Your task to perform on an android device: Go to wifi settings Image 0: 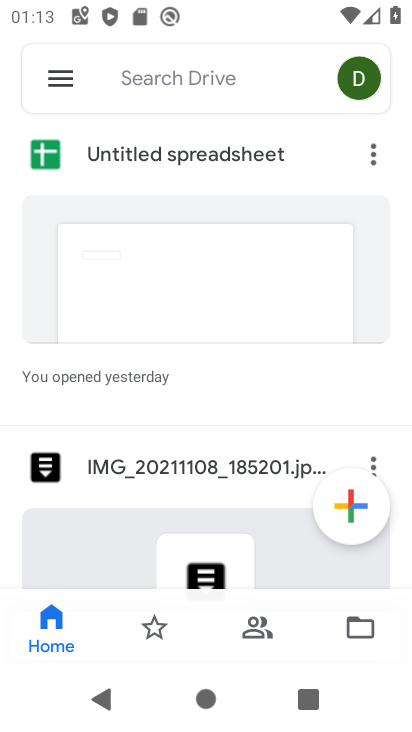
Step 0: press home button
Your task to perform on an android device: Go to wifi settings Image 1: 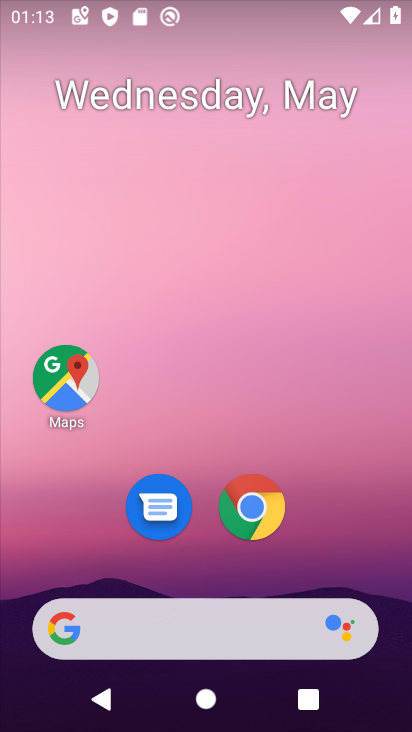
Step 1: drag from (216, 455) to (184, 88)
Your task to perform on an android device: Go to wifi settings Image 2: 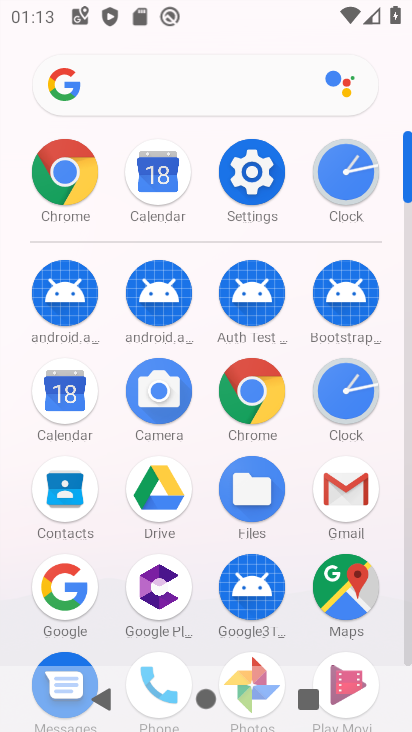
Step 2: click (237, 172)
Your task to perform on an android device: Go to wifi settings Image 3: 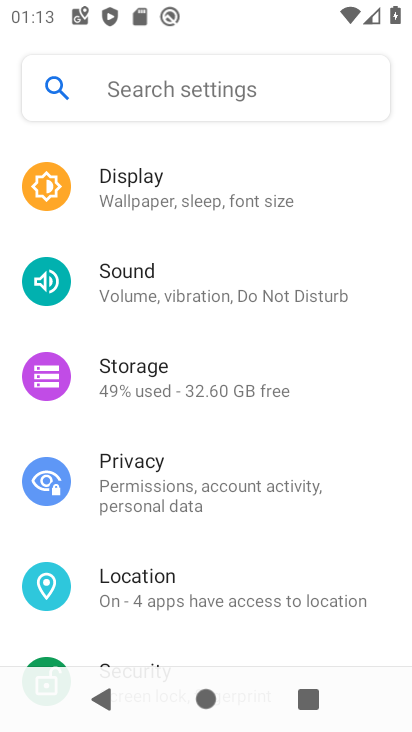
Step 3: drag from (165, 184) to (185, 524)
Your task to perform on an android device: Go to wifi settings Image 4: 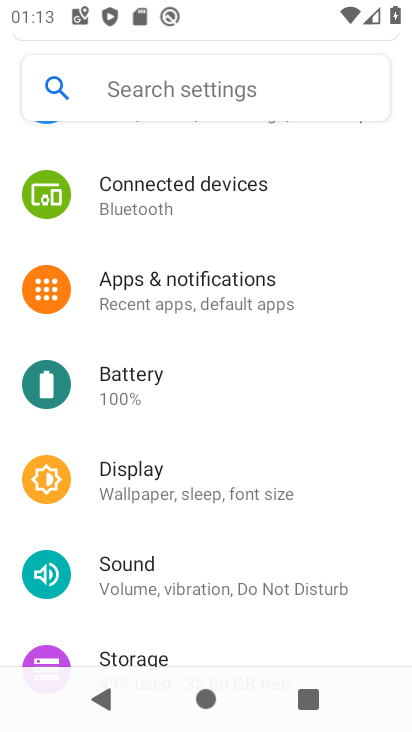
Step 4: drag from (191, 173) to (163, 537)
Your task to perform on an android device: Go to wifi settings Image 5: 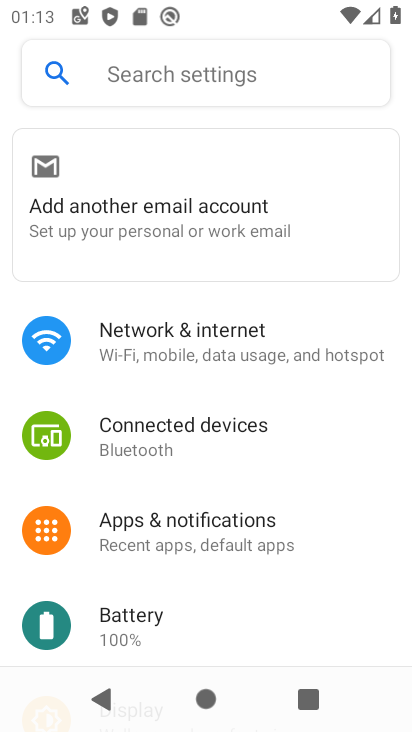
Step 5: click (215, 346)
Your task to perform on an android device: Go to wifi settings Image 6: 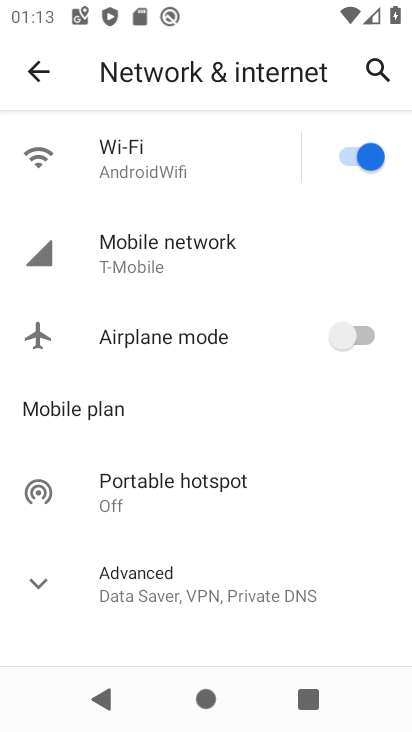
Step 6: drag from (185, 248) to (210, 143)
Your task to perform on an android device: Go to wifi settings Image 7: 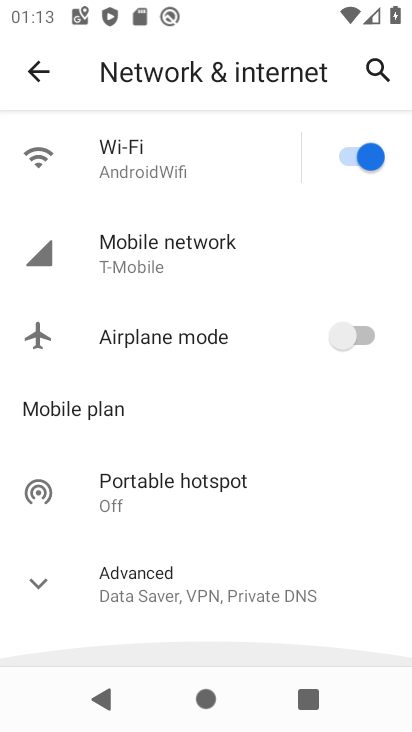
Step 7: click (208, 142)
Your task to perform on an android device: Go to wifi settings Image 8: 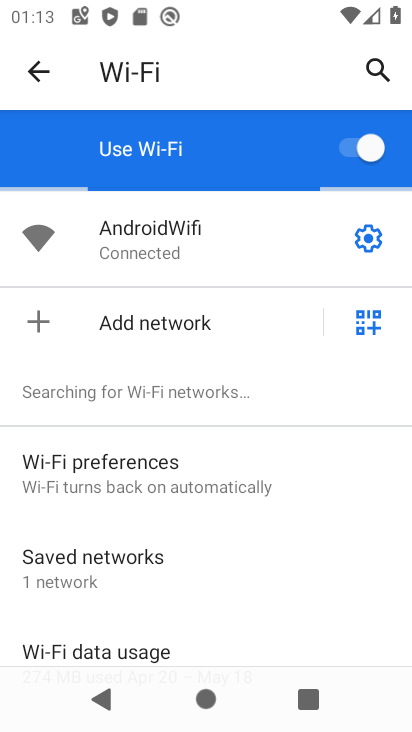
Step 8: task complete